Your task to perform on an android device: When is my next meeting? Image 0: 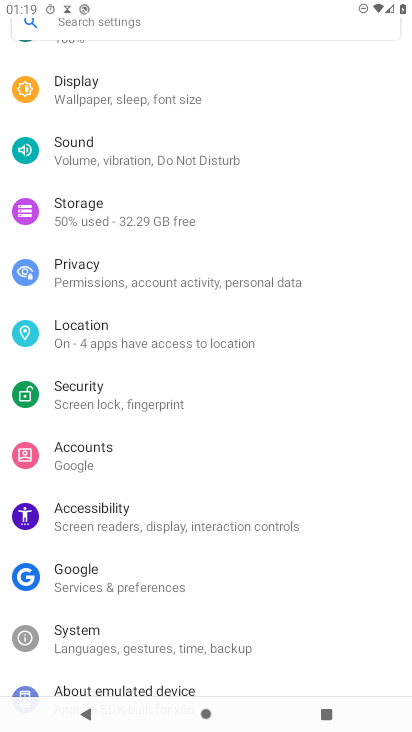
Step 0: press home button
Your task to perform on an android device: When is my next meeting? Image 1: 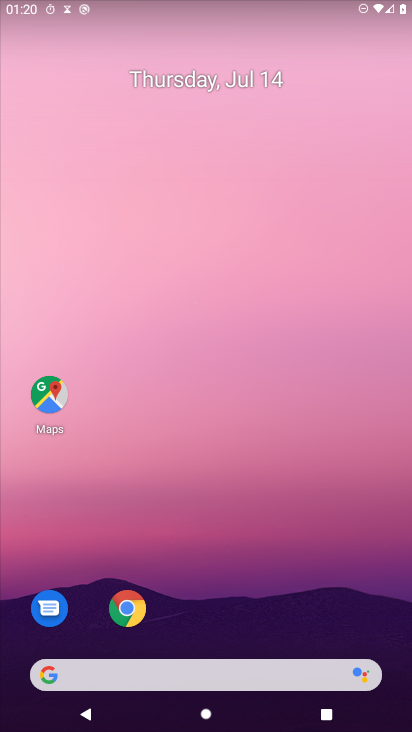
Step 1: drag from (277, 581) to (283, 42)
Your task to perform on an android device: When is my next meeting? Image 2: 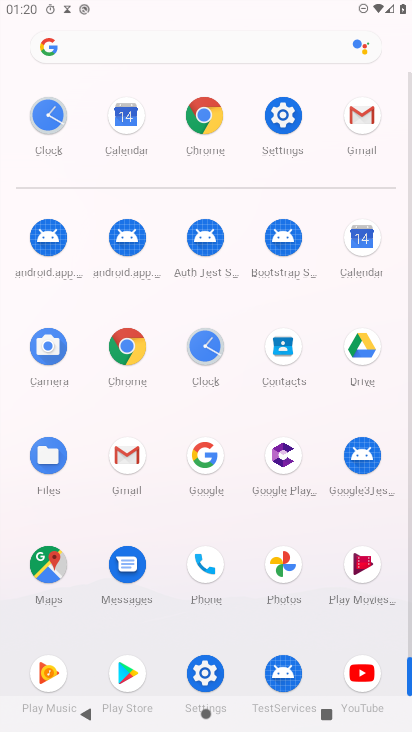
Step 2: click (351, 243)
Your task to perform on an android device: When is my next meeting? Image 3: 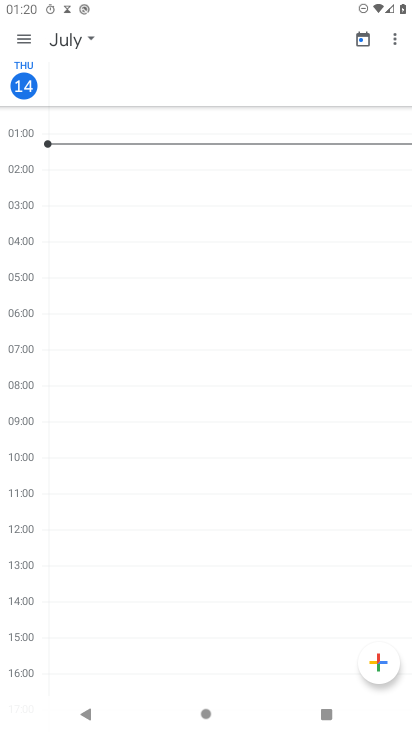
Step 3: click (17, 34)
Your task to perform on an android device: When is my next meeting? Image 4: 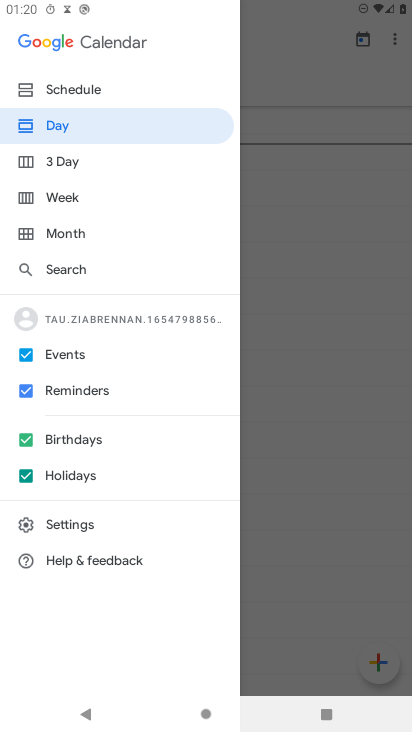
Step 4: click (80, 93)
Your task to perform on an android device: When is my next meeting? Image 5: 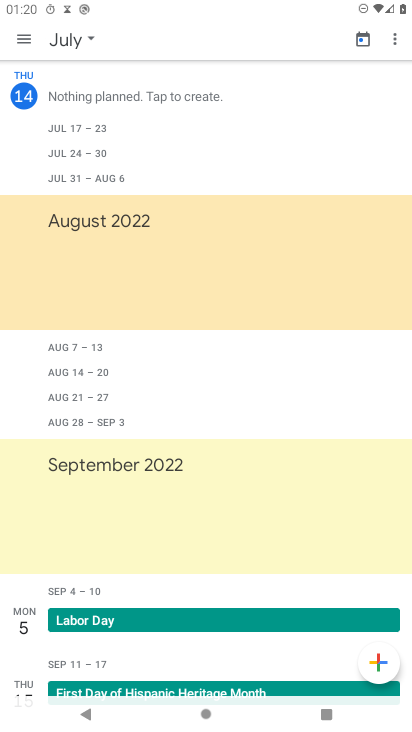
Step 5: task complete